Your task to perform on an android device: Find coffee shops on Maps Image 0: 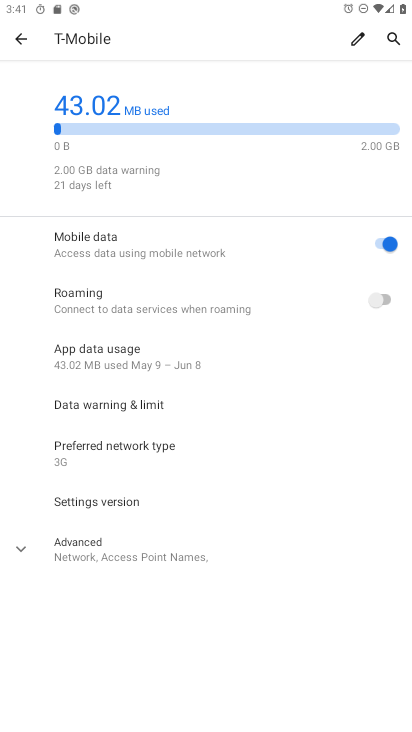
Step 0: press home button
Your task to perform on an android device: Find coffee shops on Maps Image 1: 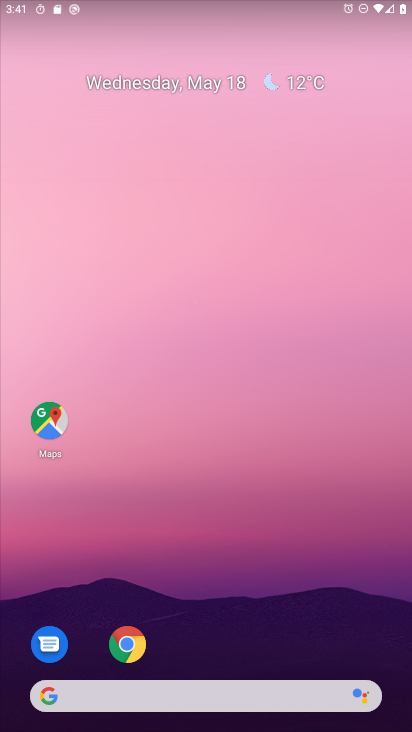
Step 1: click (44, 424)
Your task to perform on an android device: Find coffee shops on Maps Image 2: 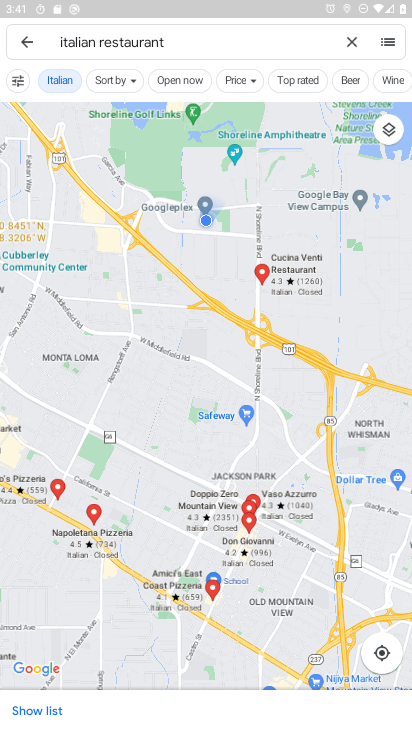
Step 2: click (346, 36)
Your task to perform on an android device: Find coffee shops on Maps Image 3: 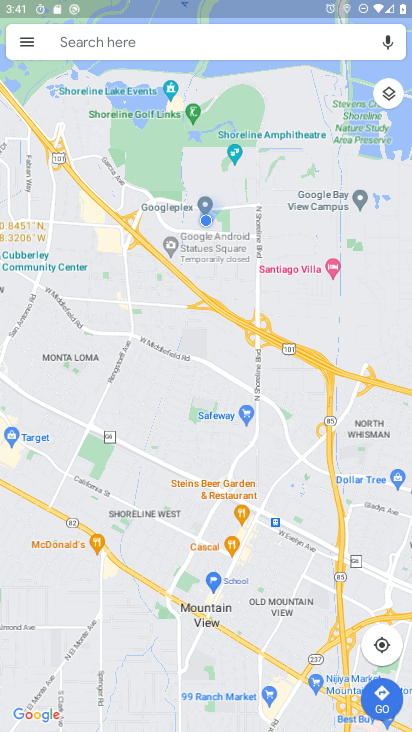
Step 3: click (131, 40)
Your task to perform on an android device: Find coffee shops on Maps Image 4: 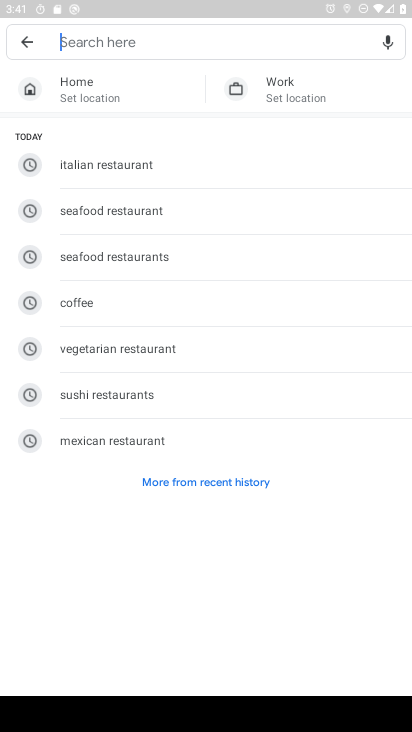
Step 4: type "coffee shops"
Your task to perform on an android device: Find coffee shops on Maps Image 5: 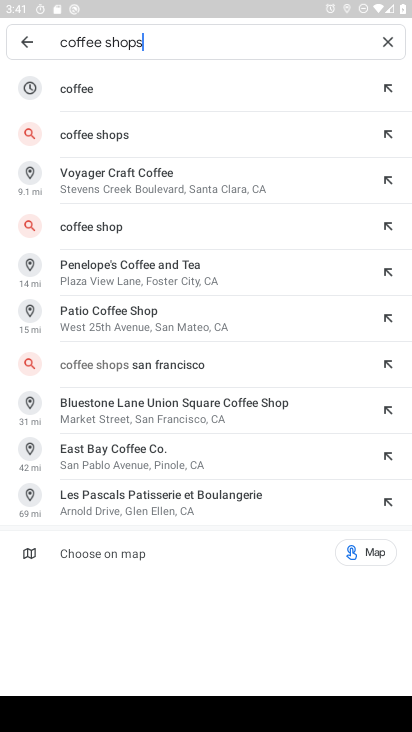
Step 5: click (85, 132)
Your task to perform on an android device: Find coffee shops on Maps Image 6: 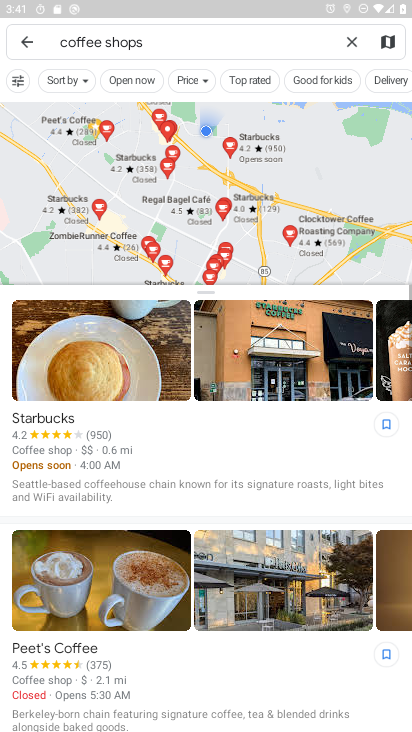
Step 6: task complete